Your task to perform on an android device: check android version Image 0: 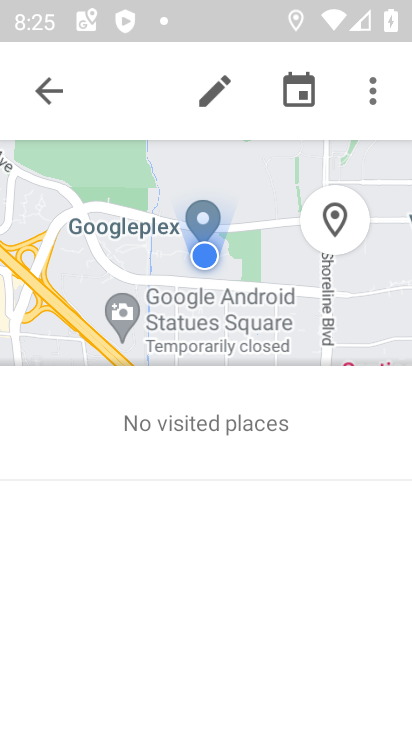
Step 0: press home button
Your task to perform on an android device: check android version Image 1: 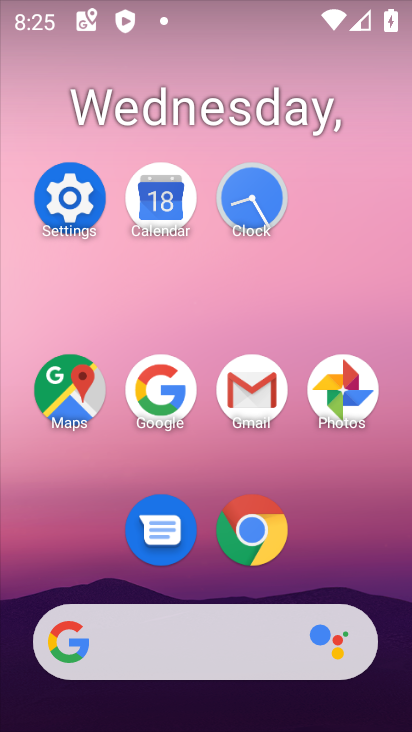
Step 1: click (81, 215)
Your task to perform on an android device: check android version Image 2: 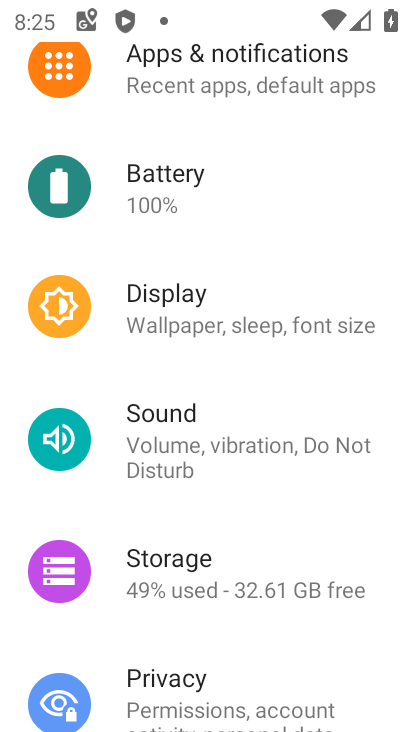
Step 2: drag from (220, 609) to (272, 199)
Your task to perform on an android device: check android version Image 3: 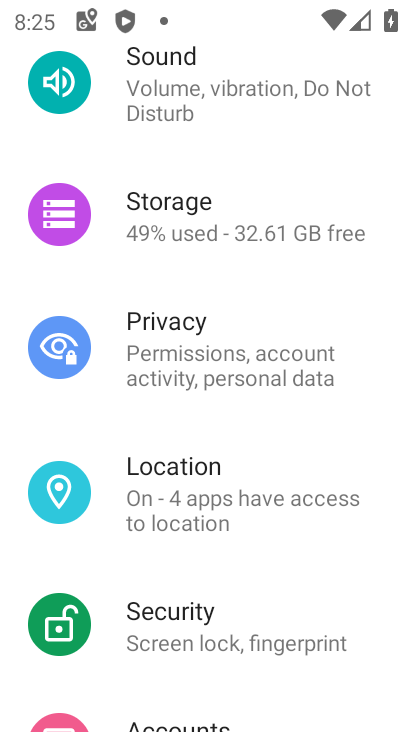
Step 3: drag from (242, 643) to (316, 195)
Your task to perform on an android device: check android version Image 4: 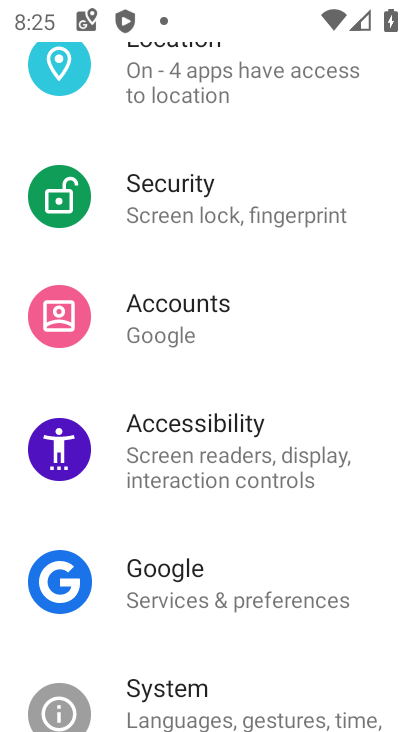
Step 4: drag from (266, 627) to (324, 214)
Your task to perform on an android device: check android version Image 5: 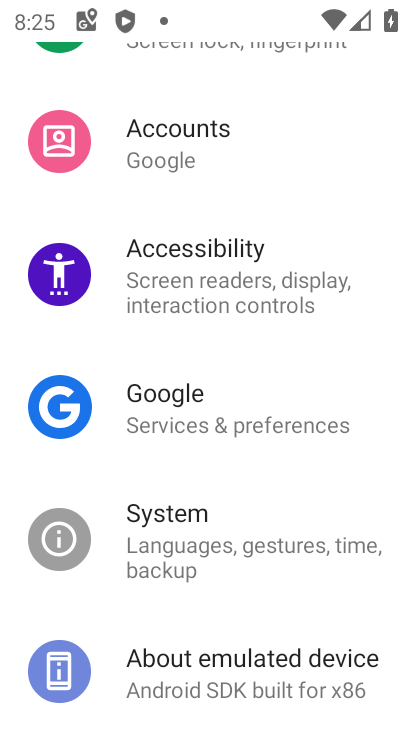
Step 5: click (256, 651)
Your task to perform on an android device: check android version Image 6: 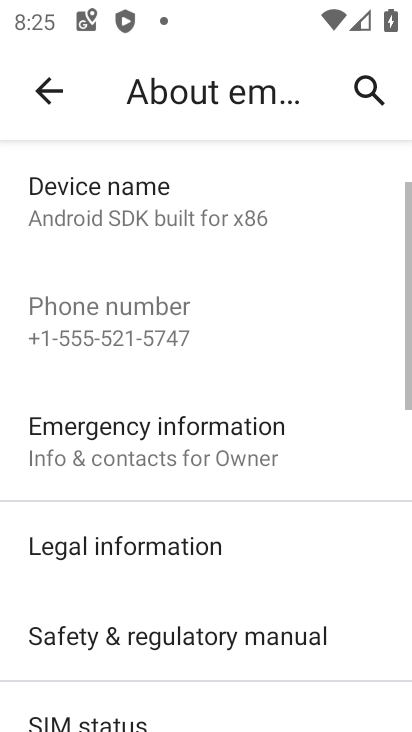
Step 6: drag from (256, 651) to (313, 211)
Your task to perform on an android device: check android version Image 7: 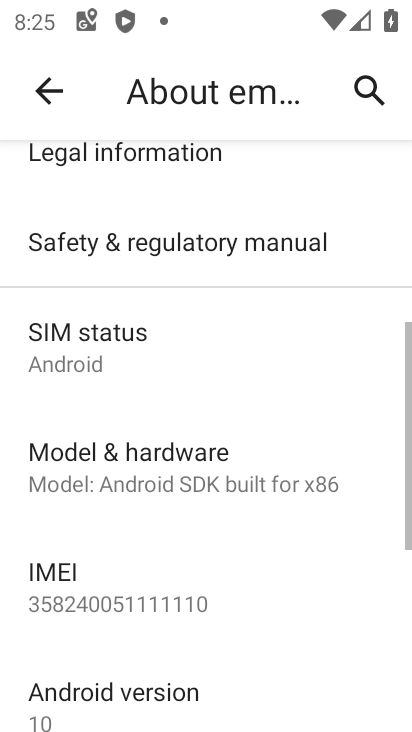
Step 7: drag from (219, 583) to (281, 242)
Your task to perform on an android device: check android version Image 8: 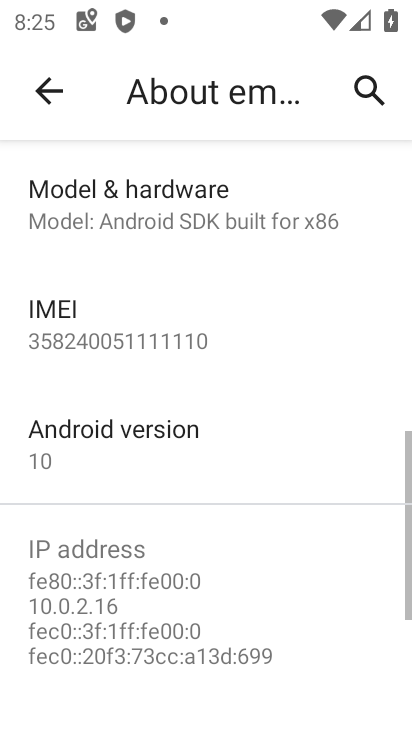
Step 8: click (216, 441)
Your task to perform on an android device: check android version Image 9: 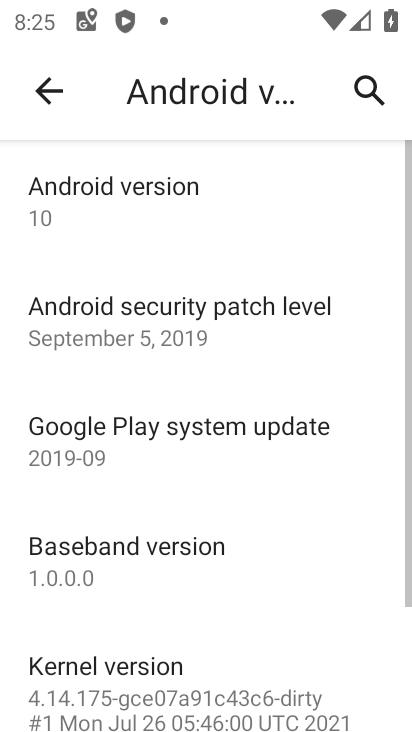
Step 9: task complete